Your task to perform on an android device: check data usage Image 0: 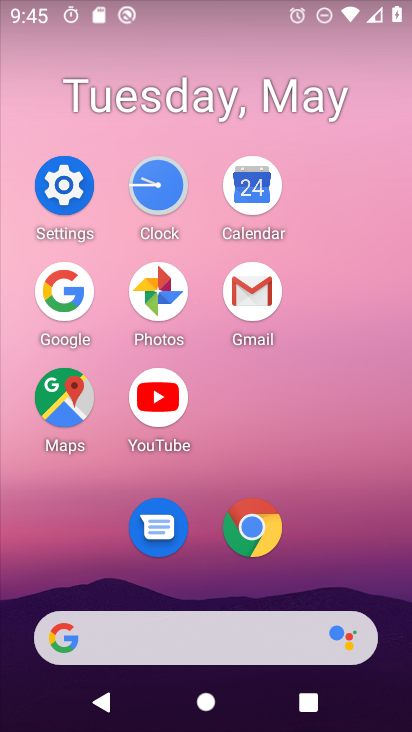
Step 0: click (56, 195)
Your task to perform on an android device: check data usage Image 1: 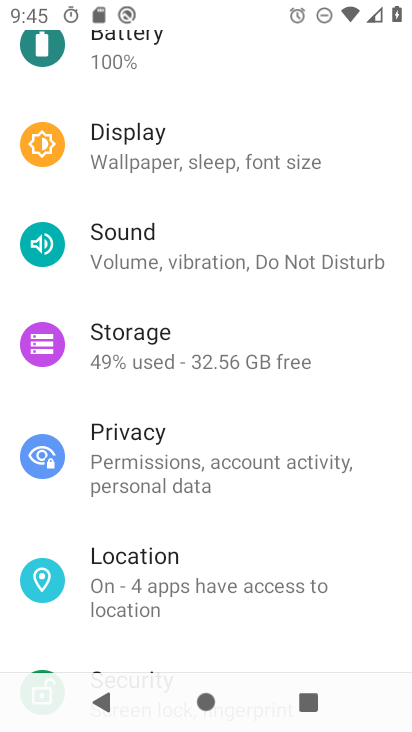
Step 1: drag from (278, 269) to (238, 564)
Your task to perform on an android device: check data usage Image 2: 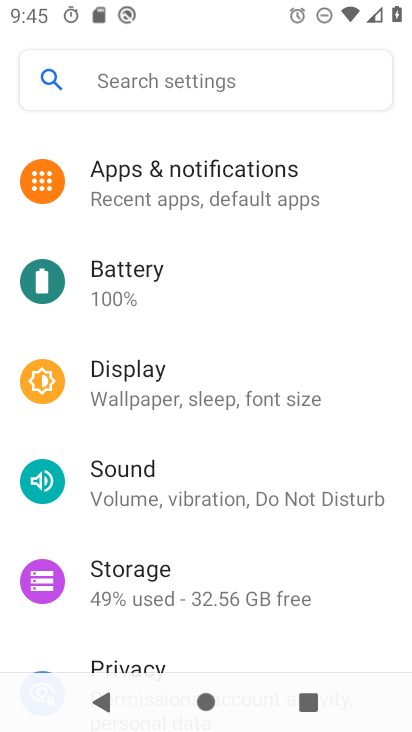
Step 2: drag from (240, 153) to (235, 503)
Your task to perform on an android device: check data usage Image 3: 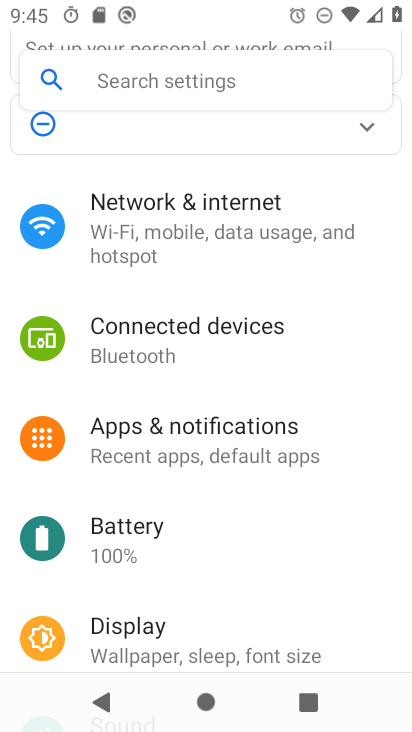
Step 3: click (235, 233)
Your task to perform on an android device: check data usage Image 4: 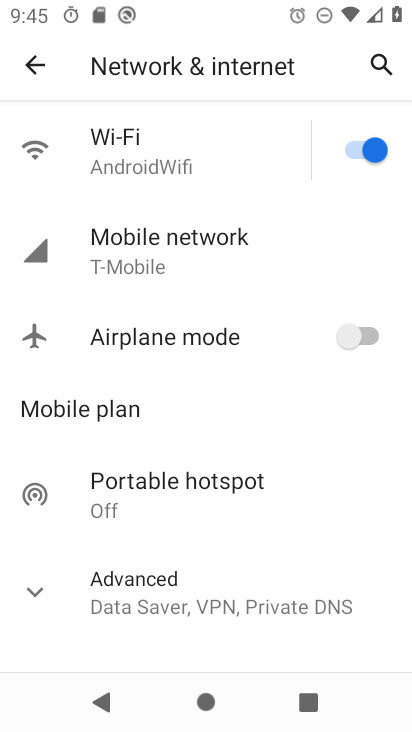
Step 4: click (235, 233)
Your task to perform on an android device: check data usage Image 5: 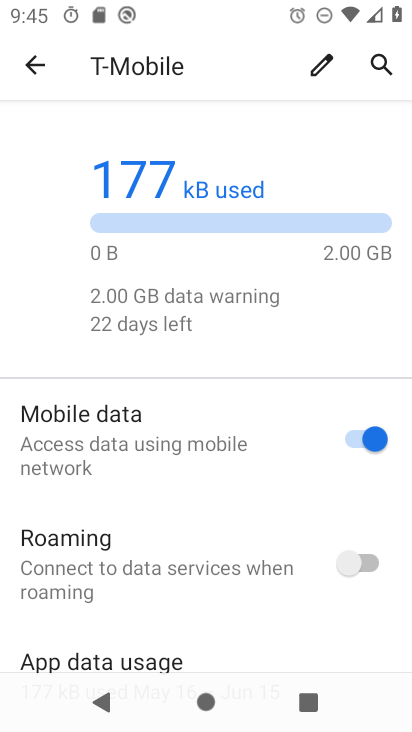
Step 5: task complete